Your task to perform on an android device: Do I have any events today? Image 0: 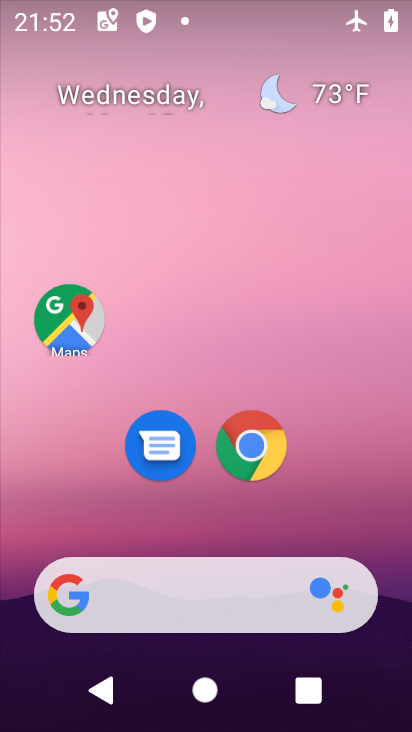
Step 0: drag from (299, 523) to (291, 262)
Your task to perform on an android device: Do I have any events today? Image 1: 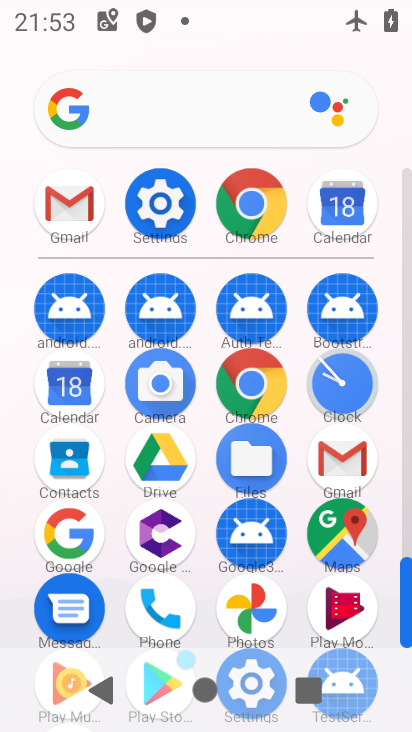
Step 1: drag from (96, 528) to (107, 395)
Your task to perform on an android device: Do I have any events today? Image 2: 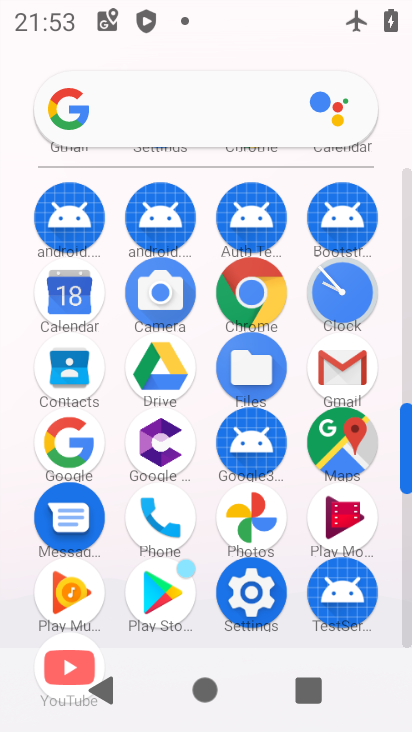
Step 2: click (69, 291)
Your task to perform on an android device: Do I have any events today? Image 3: 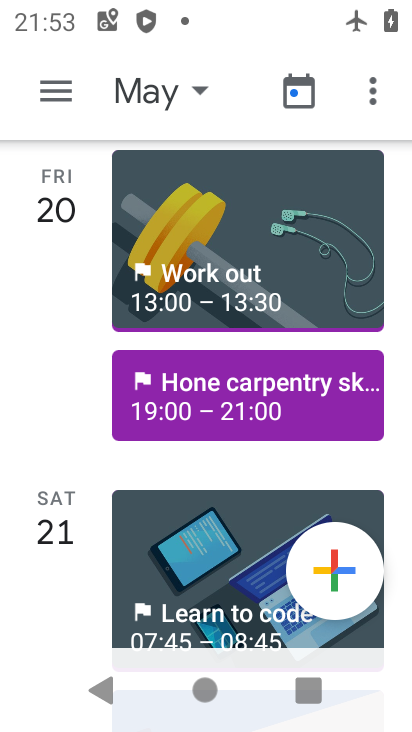
Step 3: drag from (240, 198) to (204, 541)
Your task to perform on an android device: Do I have any events today? Image 4: 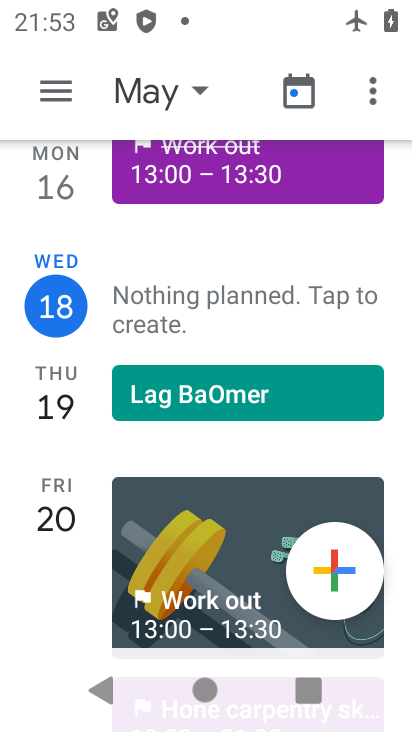
Step 4: click (75, 393)
Your task to perform on an android device: Do I have any events today? Image 5: 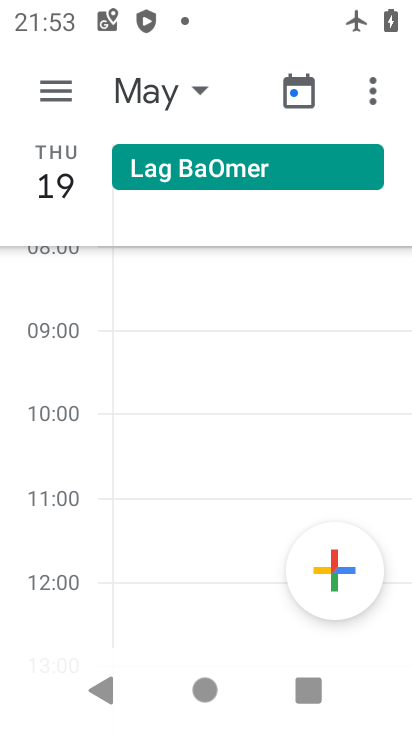
Step 5: task complete